Your task to perform on an android device: star an email in the gmail app Image 0: 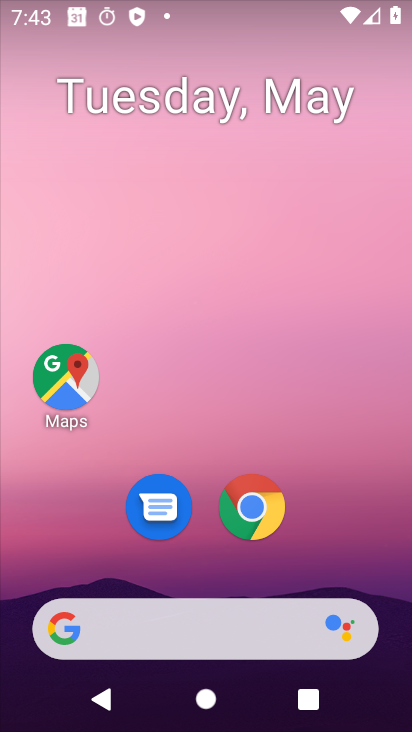
Step 0: drag from (310, 549) to (192, 23)
Your task to perform on an android device: star an email in the gmail app Image 1: 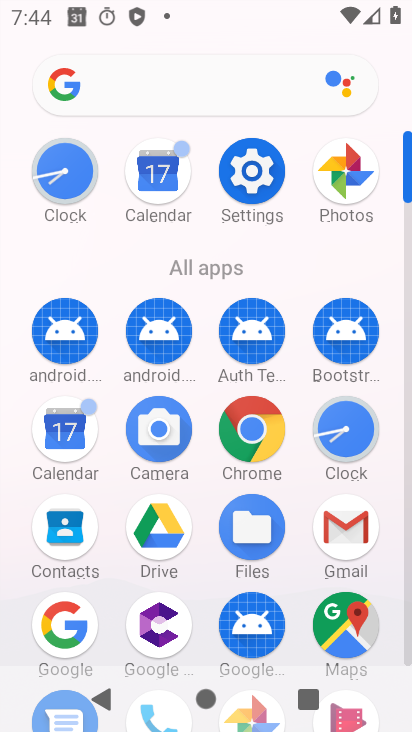
Step 1: click (352, 516)
Your task to perform on an android device: star an email in the gmail app Image 2: 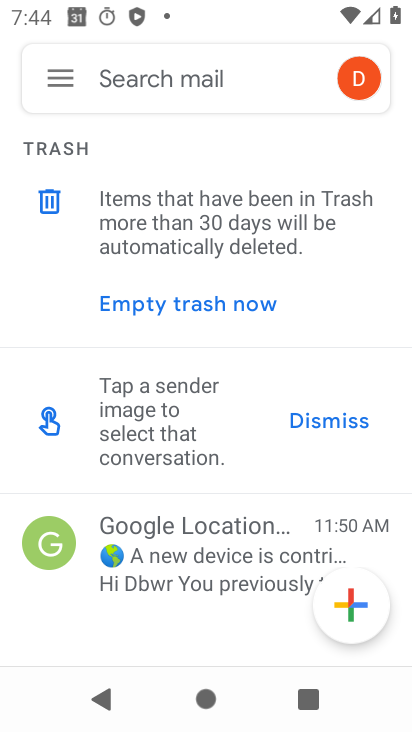
Step 2: drag from (283, 498) to (256, 167)
Your task to perform on an android device: star an email in the gmail app Image 3: 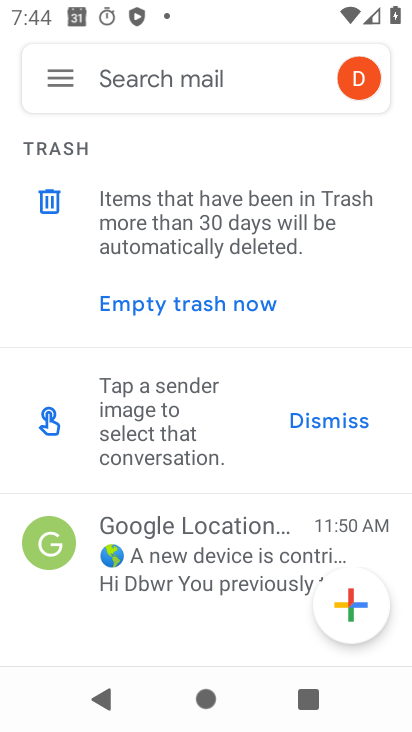
Step 3: click (52, 78)
Your task to perform on an android device: star an email in the gmail app Image 4: 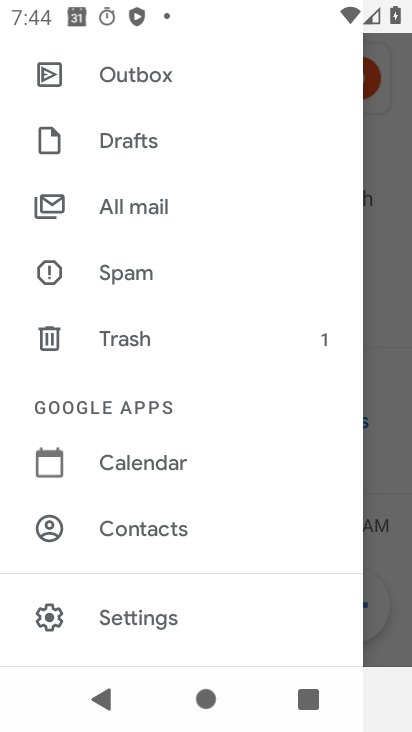
Step 4: click (156, 205)
Your task to perform on an android device: star an email in the gmail app Image 5: 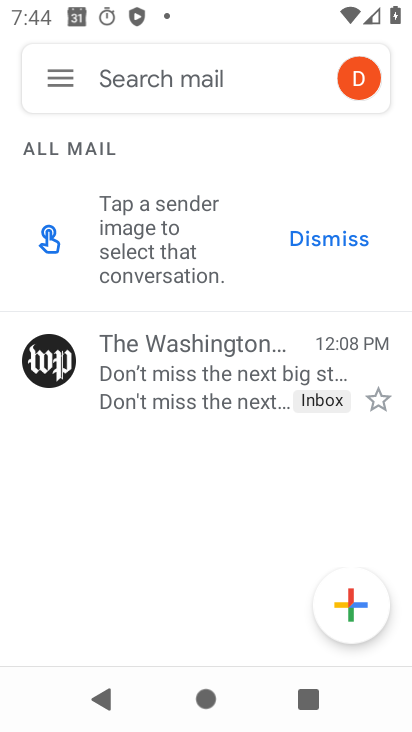
Step 5: click (372, 394)
Your task to perform on an android device: star an email in the gmail app Image 6: 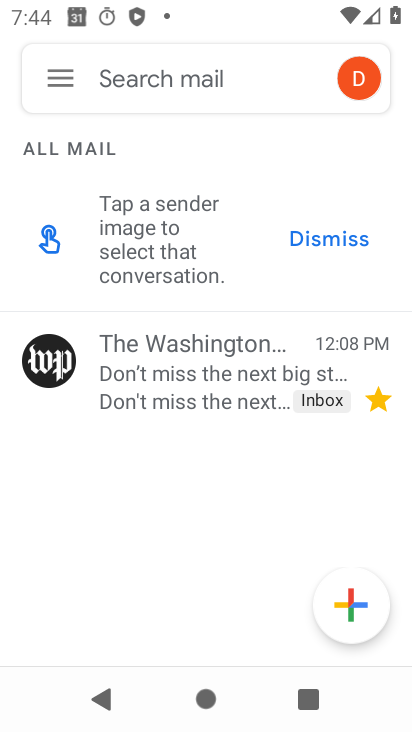
Step 6: task complete